Your task to perform on an android device: create a new album in the google photos Image 0: 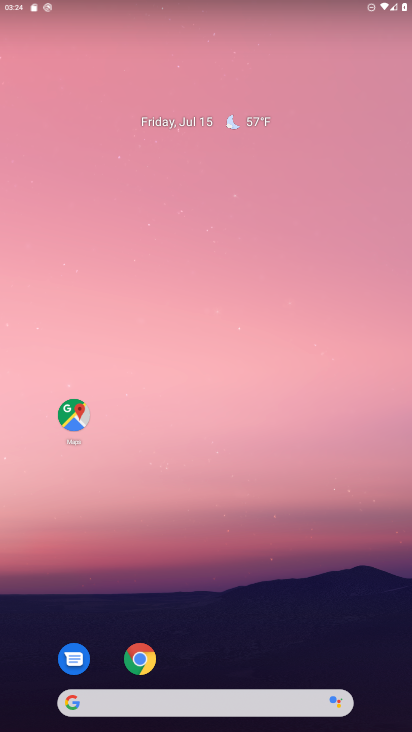
Step 0: drag from (212, 639) to (253, 134)
Your task to perform on an android device: create a new album in the google photos Image 1: 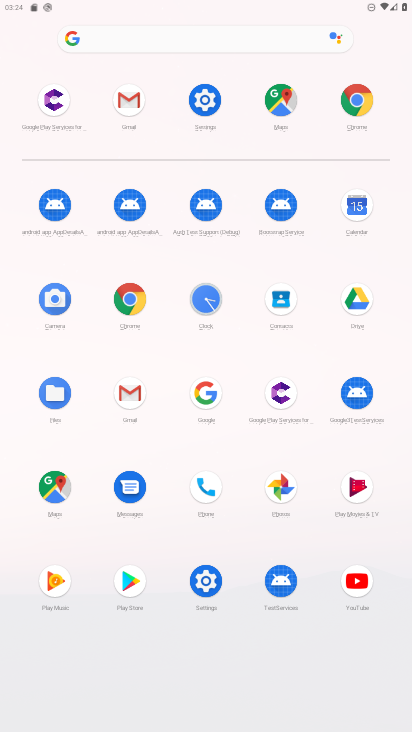
Step 1: click (283, 491)
Your task to perform on an android device: create a new album in the google photos Image 2: 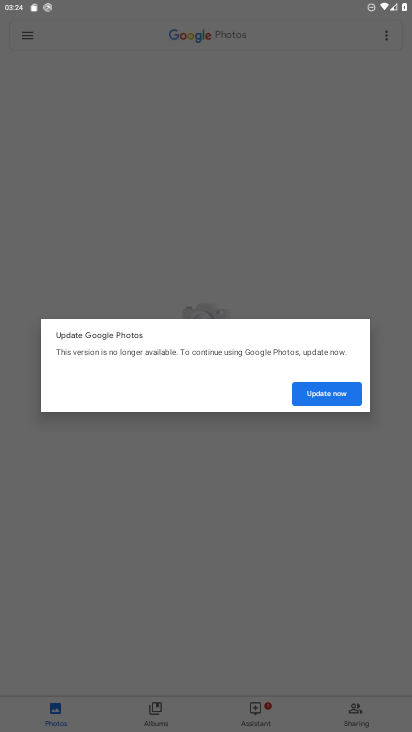
Step 2: click (341, 393)
Your task to perform on an android device: create a new album in the google photos Image 3: 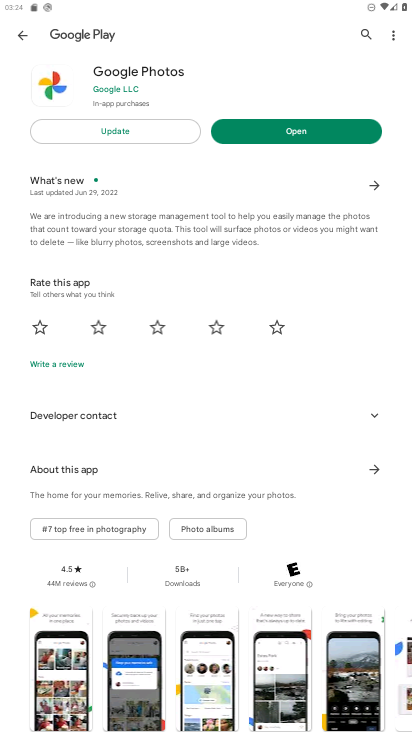
Step 3: click (297, 137)
Your task to perform on an android device: create a new album in the google photos Image 4: 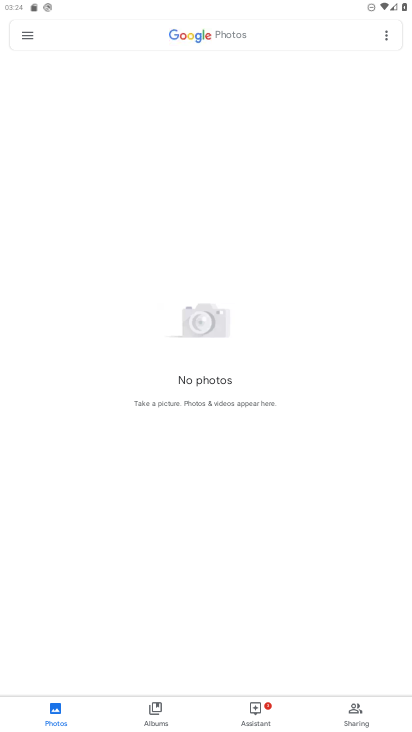
Step 4: click (159, 722)
Your task to perform on an android device: create a new album in the google photos Image 5: 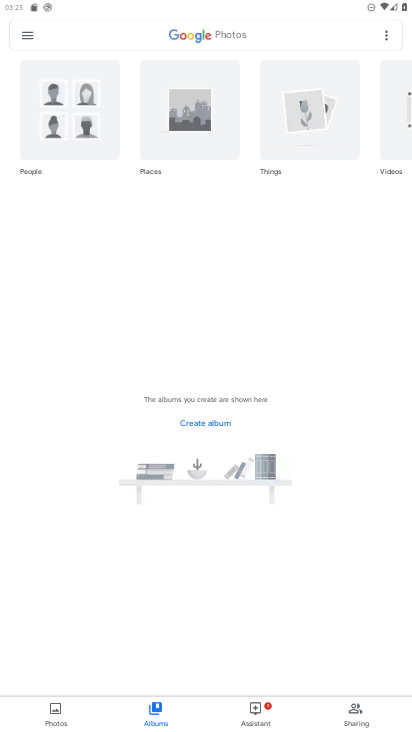
Step 5: click (206, 416)
Your task to perform on an android device: create a new album in the google photos Image 6: 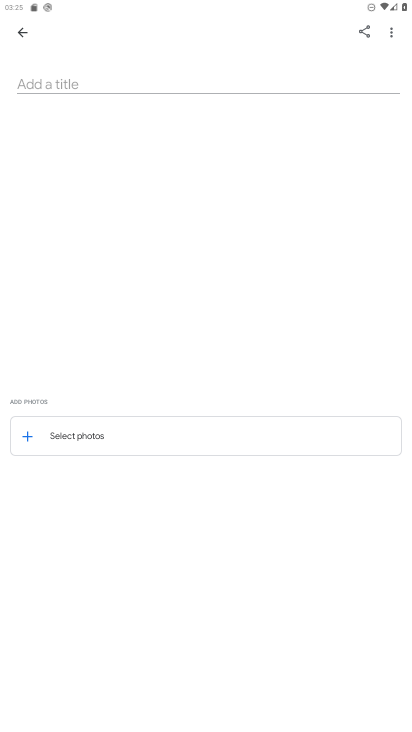
Step 6: click (28, 440)
Your task to perform on an android device: create a new album in the google photos Image 7: 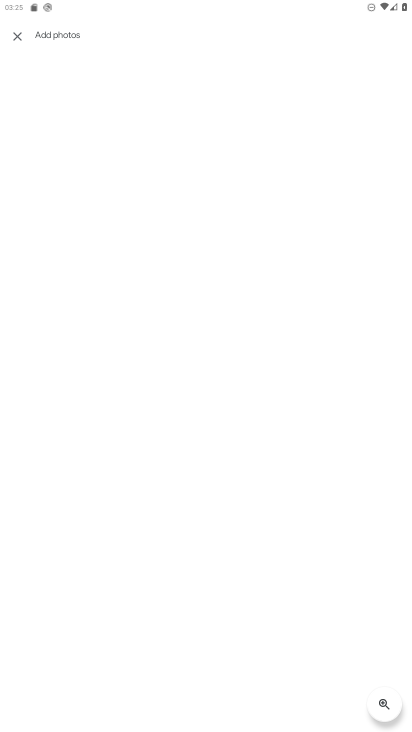
Step 7: task complete